Your task to perform on an android device: turn on location history Image 0: 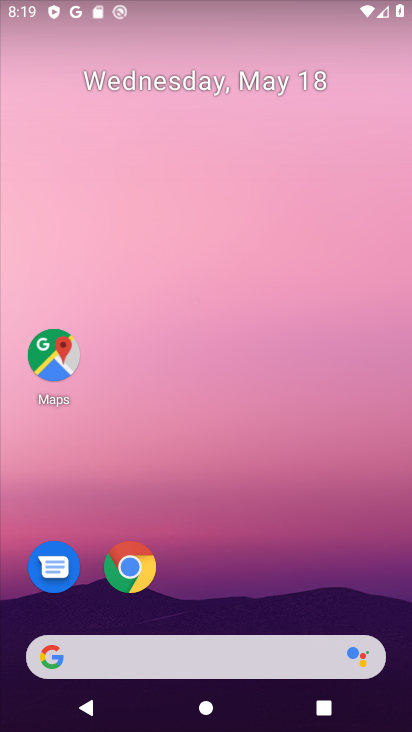
Step 0: drag from (257, 551) to (221, 19)
Your task to perform on an android device: turn on location history Image 1: 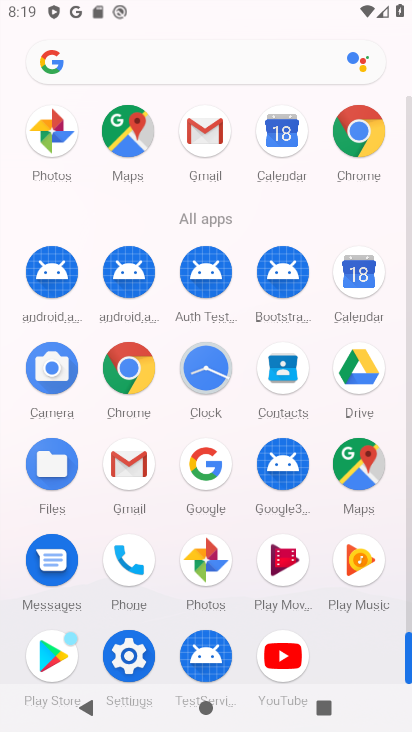
Step 1: drag from (2, 470) to (15, 310)
Your task to perform on an android device: turn on location history Image 2: 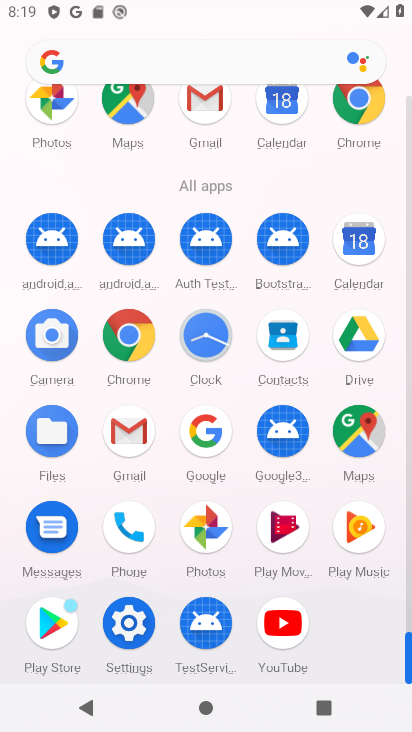
Step 2: click (126, 620)
Your task to perform on an android device: turn on location history Image 3: 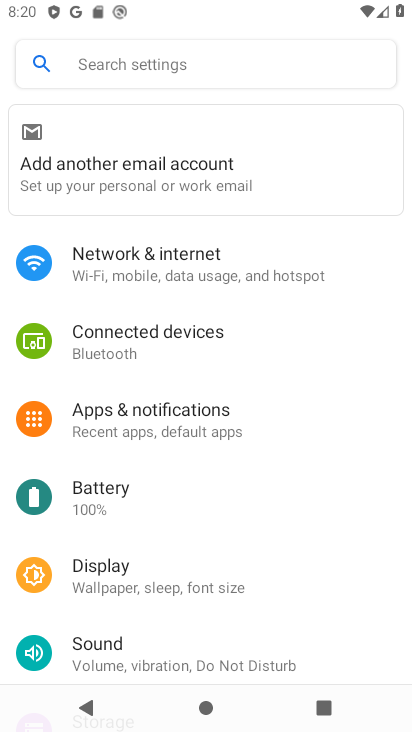
Step 3: drag from (259, 575) to (269, 151)
Your task to perform on an android device: turn on location history Image 4: 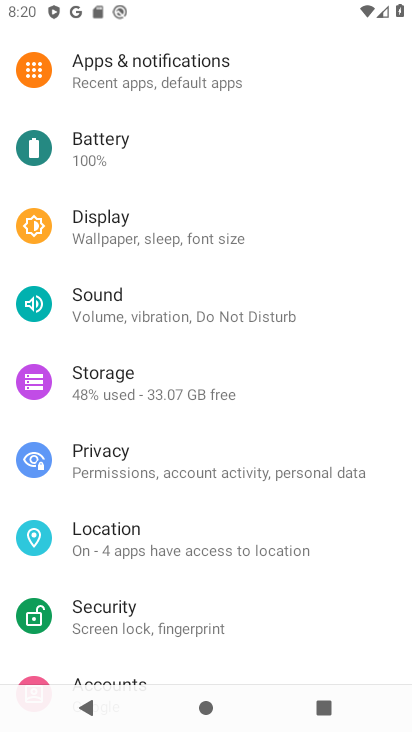
Step 4: click (194, 549)
Your task to perform on an android device: turn on location history Image 5: 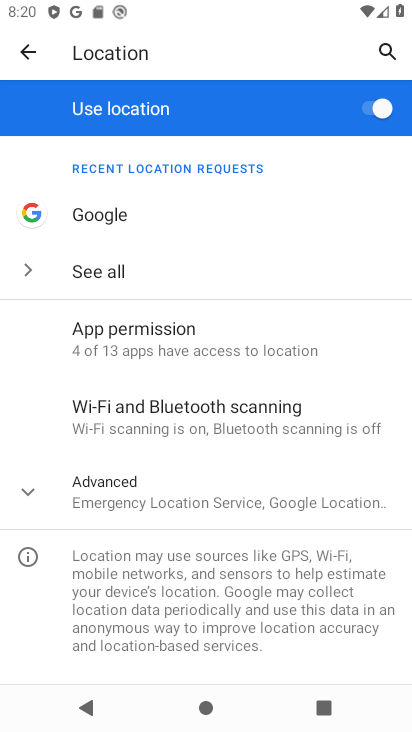
Step 5: click (61, 496)
Your task to perform on an android device: turn on location history Image 6: 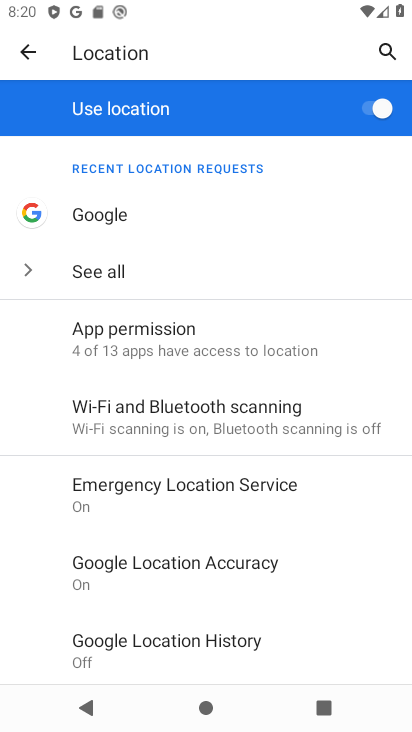
Step 6: click (213, 643)
Your task to perform on an android device: turn on location history Image 7: 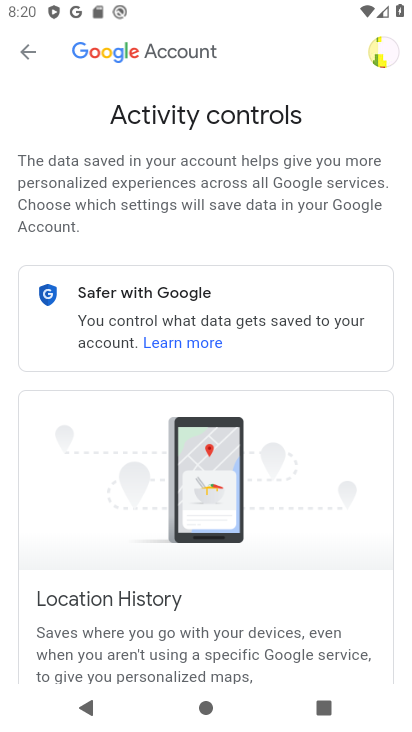
Step 7: task complete